Your task to perform on an android device: Check the news Image 0: 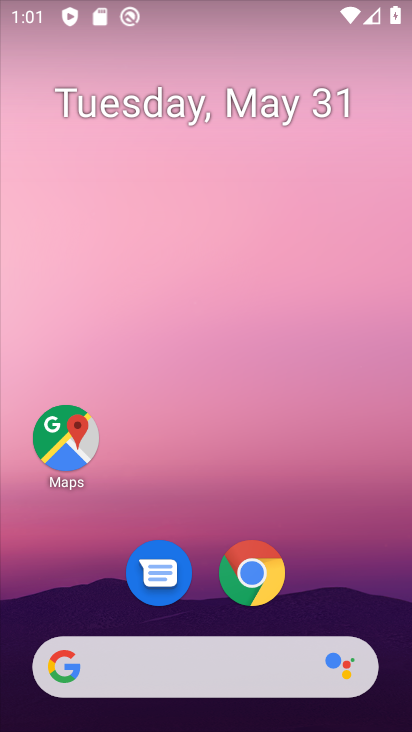
Step 0: drag from (1, 279) to (402, 300)
Your task to perform on an android device: Check the news Image 1: 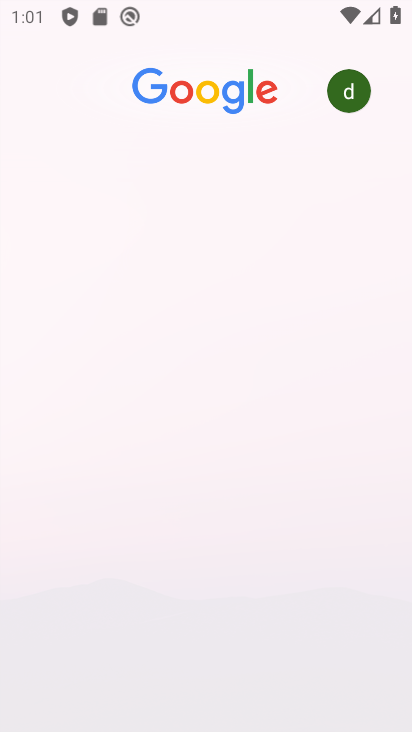
Step 1: task complete